Your task to perform on an android device: Open Chrome and go to settings Image 0: 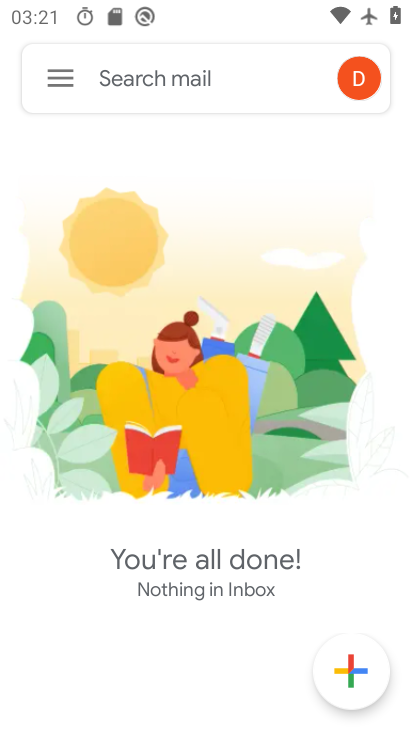
Step 0: press home button
Your task to perform on an android device: Open Chrome and go to settings Image 1: 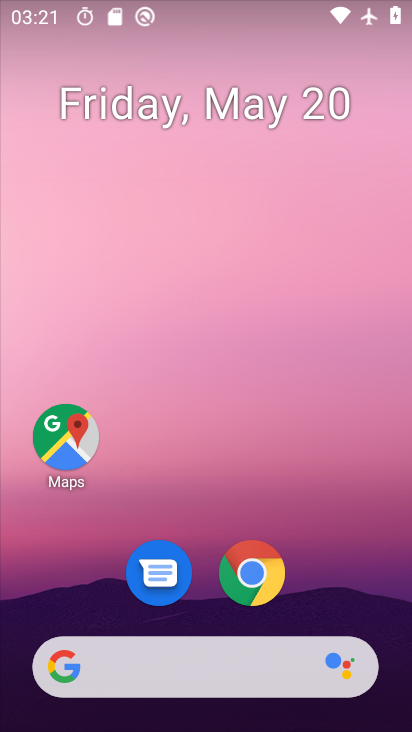
Step 1: click (242, 589)
Your task to perform on an android device: Open Chrome and go to settings Image 2: 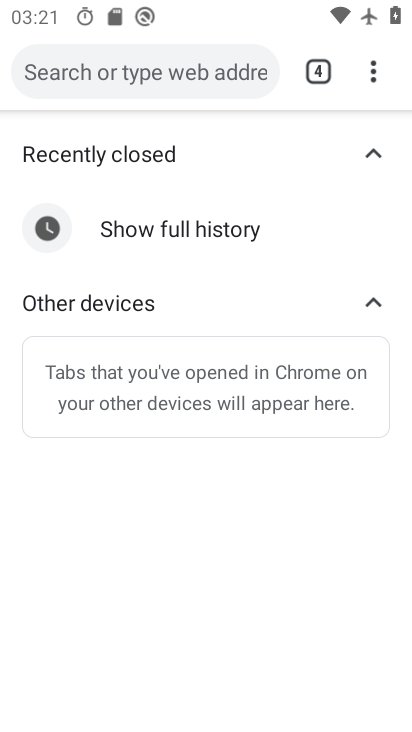
Step 2: click (369, 66)
Your task to perform on an android device: Open Chrome and go to settings Image 3: 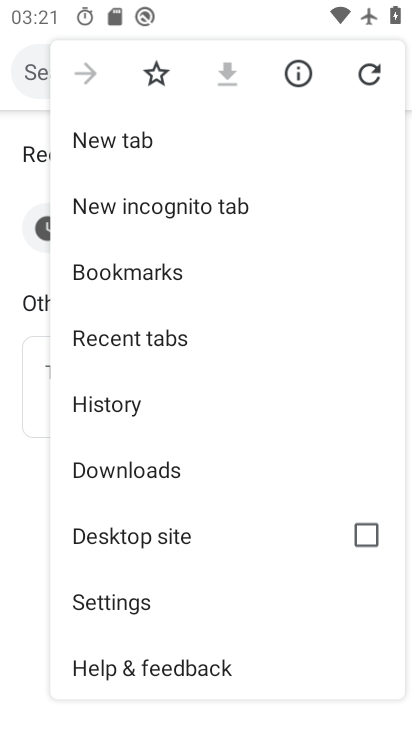
Step 3: drag from (178, 669) to (178, 420)
Your task to perform on an android device: Open Chrome and go to settings Image 4: 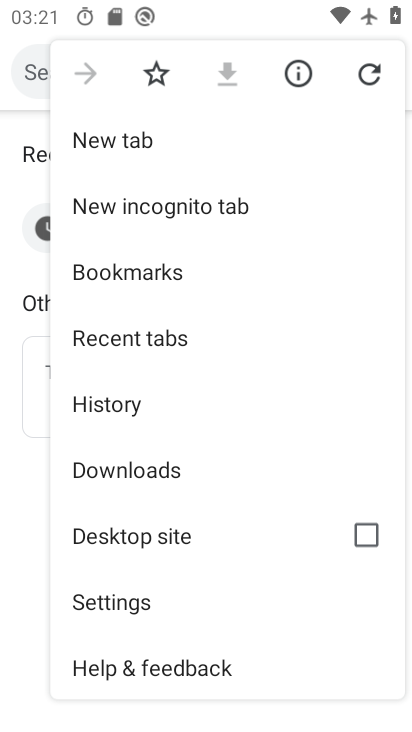
Step 4: click (133, 597)
Your task to perform on an android device: Open Chrome and go to settings Image 5: 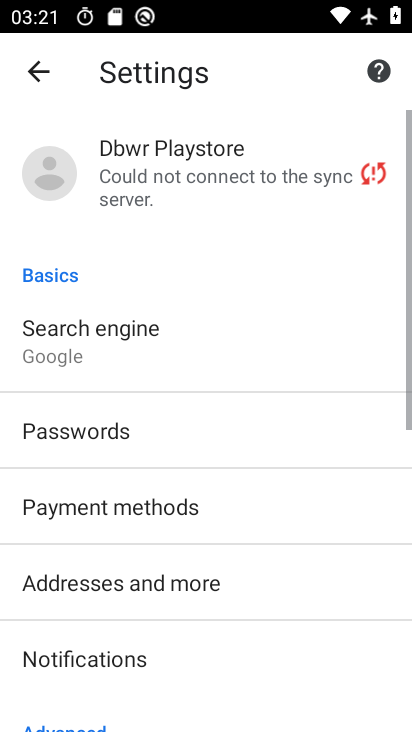
Step 5: task complete